Your task to perform on an android device: delete browsing data in the chrome app Image 0: 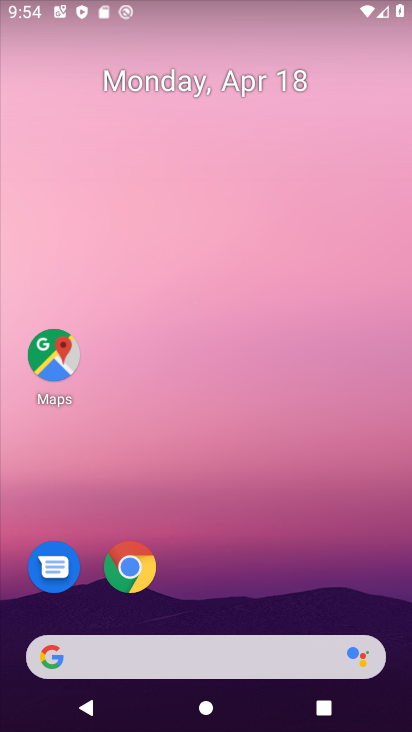
Step 0: click (139, 567)
Your task to perform on an android device: delete browsing data in the chrome app Image 1: 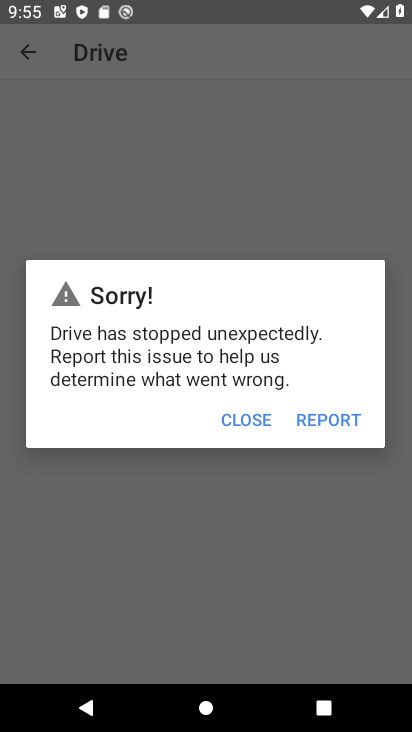
Step 1: press home button
Your task to perform on an android device: delete browsing data in the chrome app Image 2: 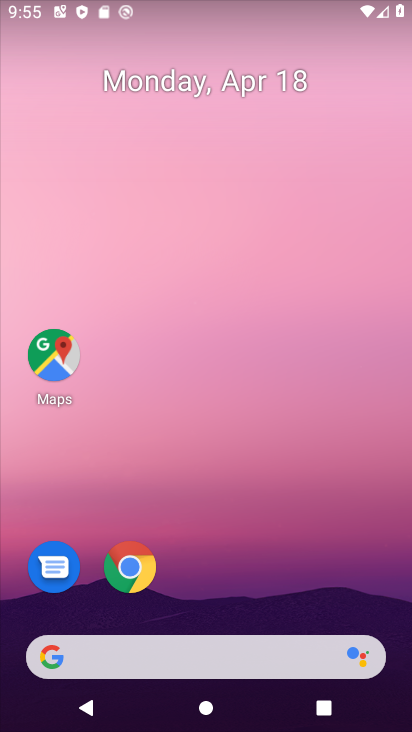
Step 2: click (147, 561)
Your task to perform on an android device: delete browsing data in the chrome app Image 3: 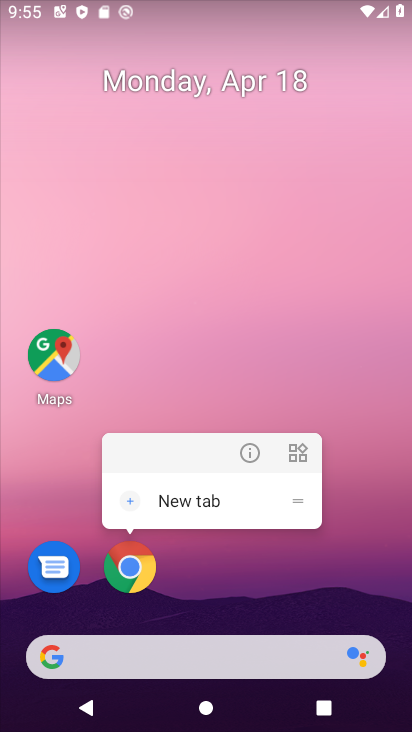
Step 3: click (144, 580)
Your task to perform on an android device: delete browsing data in the chrome app Image 4: 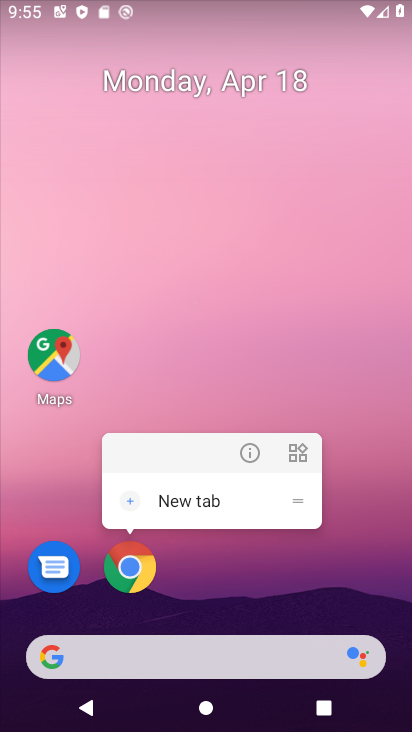
Step 4: click (124, 558)
Your task to perform on an android device: delete browsing data in the chrome app Image 5: 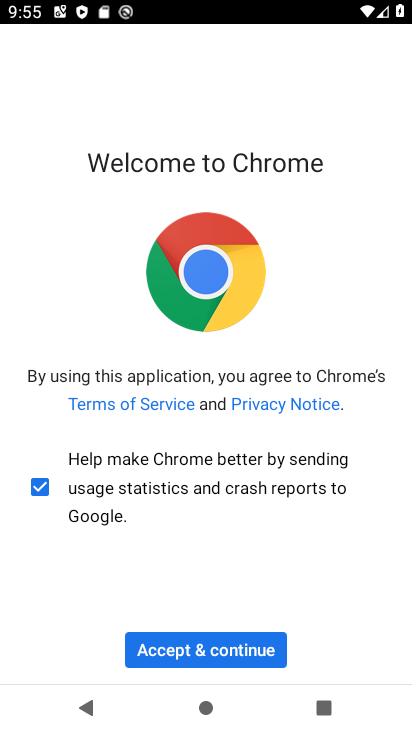
Step 5: click (166, 643)
Your task to perform on an android device: delete browsing data in the chrome app Image 6: 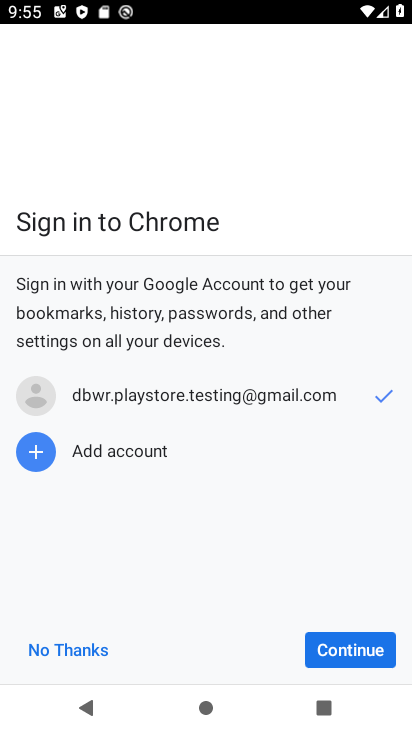
Step 6: click (374, 655)
Your task to perform on an android device: delete browsing data in the chrome app Image 7: 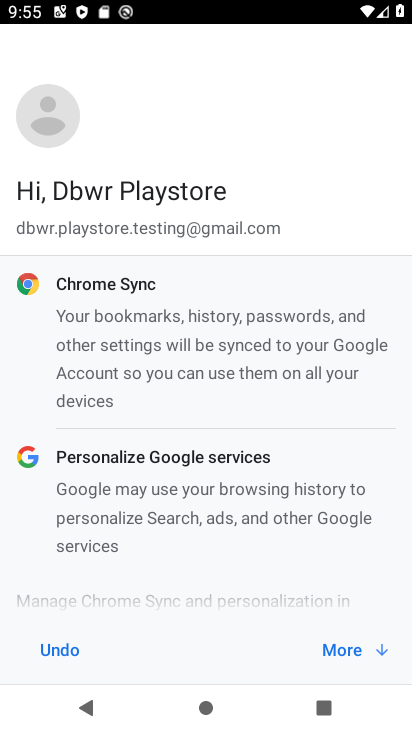
Step 7: click (363, 655)
Your task to perform on an android device: delete browsing data in the chrome app Image 8: 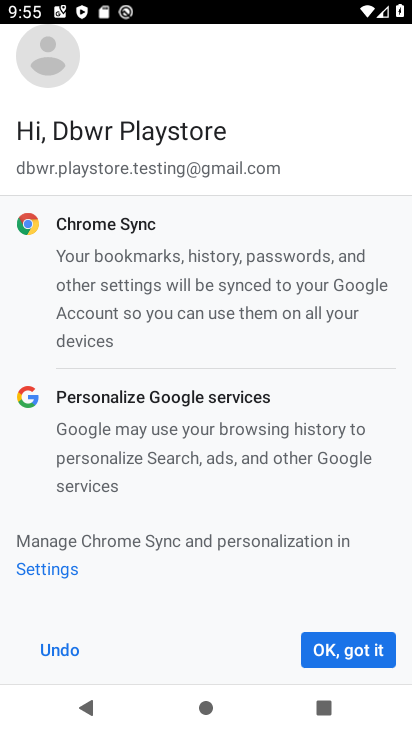
Step 8: click (363, 656)
Your task to perform on an android device: delete browsing data in the chrome app Image 9: 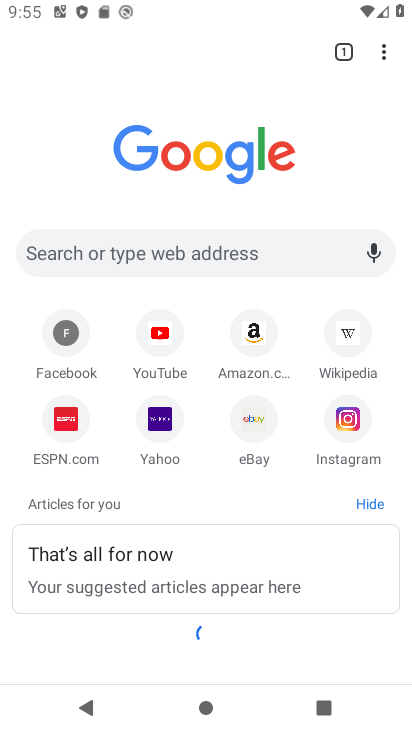
Step 9: click (380, 53)
Your task to perform on an android device: delete browsing data in the chrome app Image 10: 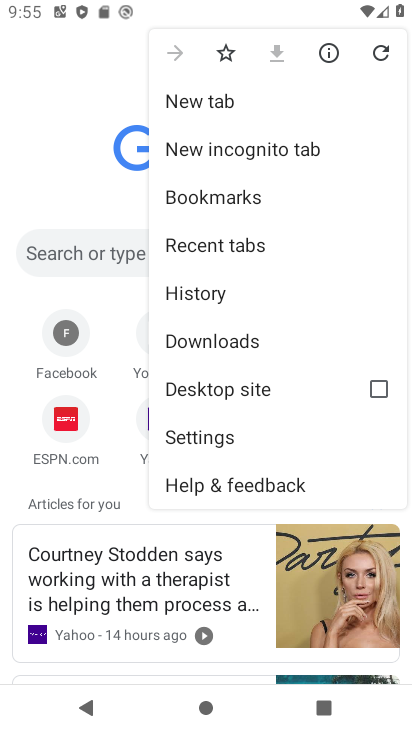
Step 10: click (227, 291)
Your task to perform on an android device: delete browsing data in the chrome app Image 11: 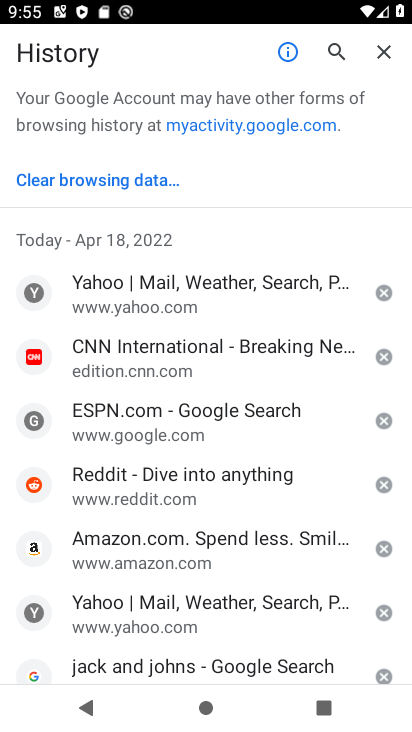
Step 11: click (126, 180)
Your task to perform on an android device: delete browsing data in the chrome app Image 12: 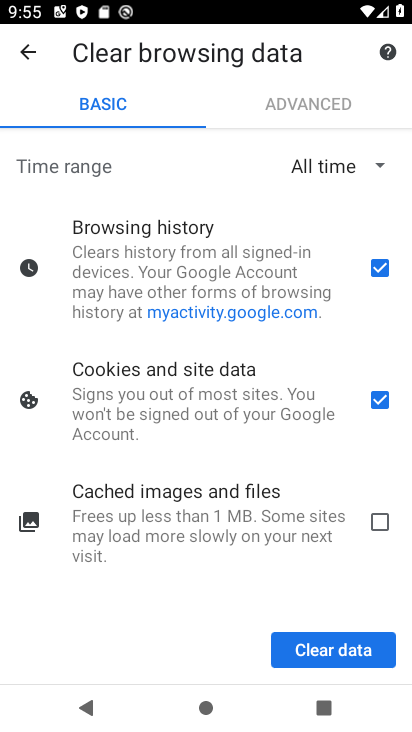
Step 12: click (296, 646)
Your task to perform on an android device: delete browsing data in the chrome app Image 13: 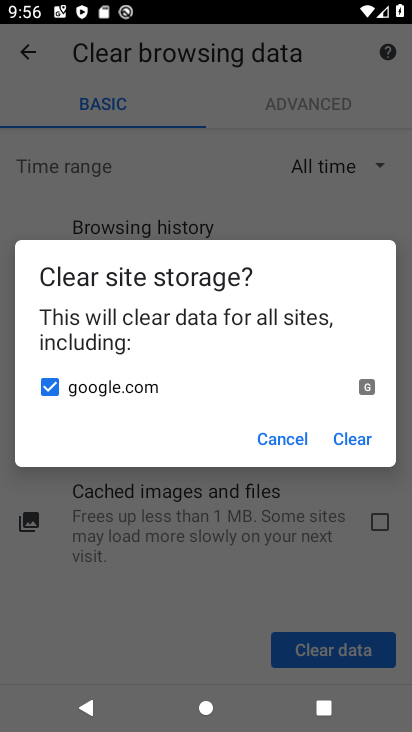
Step 13: click (332, 440)
Your task to perform on an android device: delete browsing data in the chrome app Image 14: 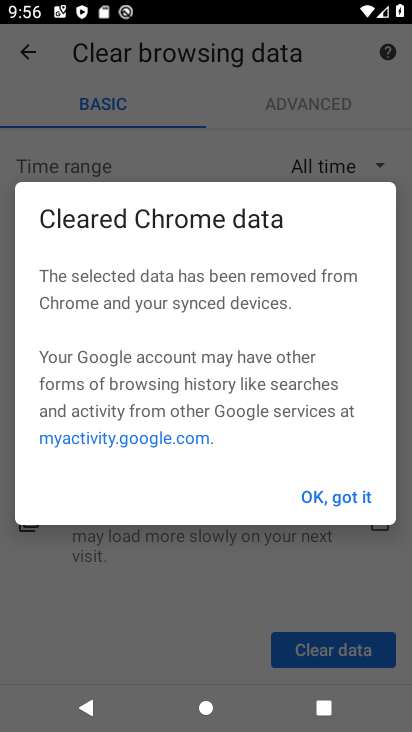
Step 14: click (327, 497)
Your task to perform on an android device: delete browsing data in the chrome app Image 15: 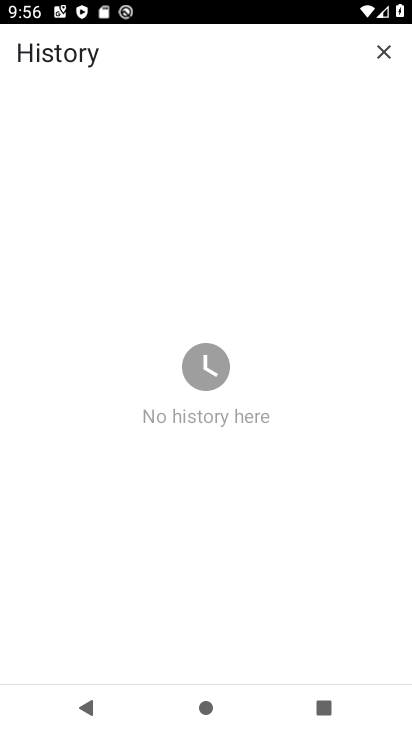
Step 15: task complete